Your task to perform on an android device: Go to Google Image 0: 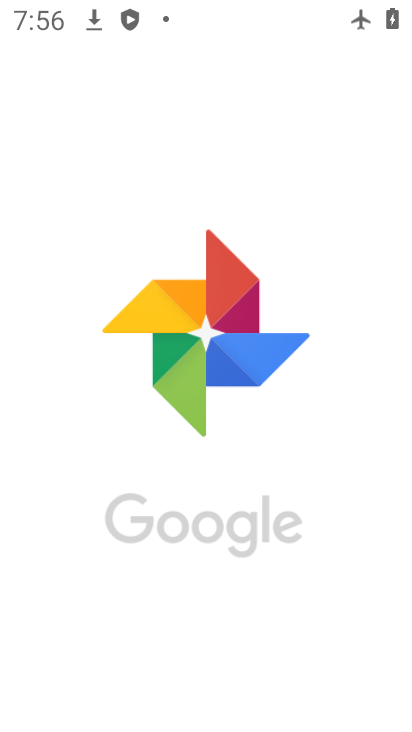
Step 0: drag from (242, 570) to (241, 80)
Your task to perform on an android device: Go to Google Image 1: 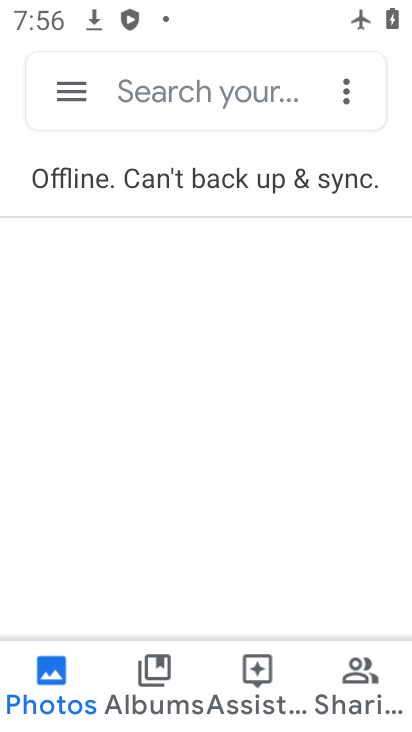
Step 1: press home button
Your task to perform on an android device: Go to Google Image 2: 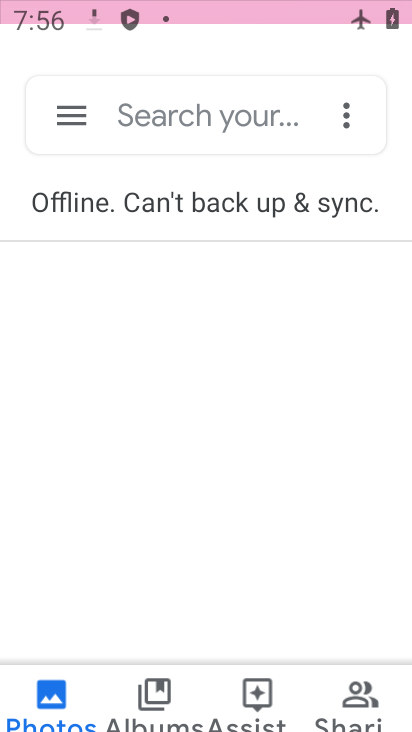
Step 2: press home button
Your task to perform on an android device: Go to Google Image 3: 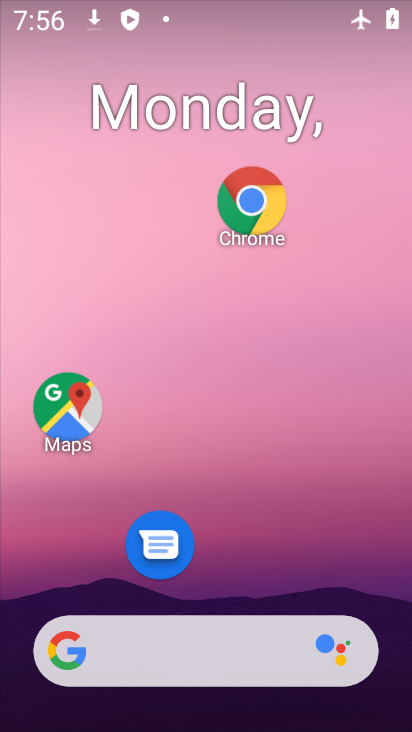
Step 3: drag from (238, 534) to (213, 114)
Your task to perform on an android device: Go to Google Image 4: 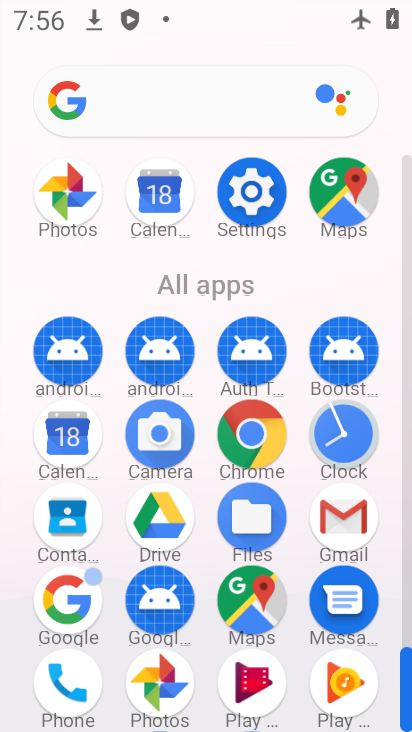
Step 4: click (58, 590)
Your task to perform on an android device: Go to Google Image 5: 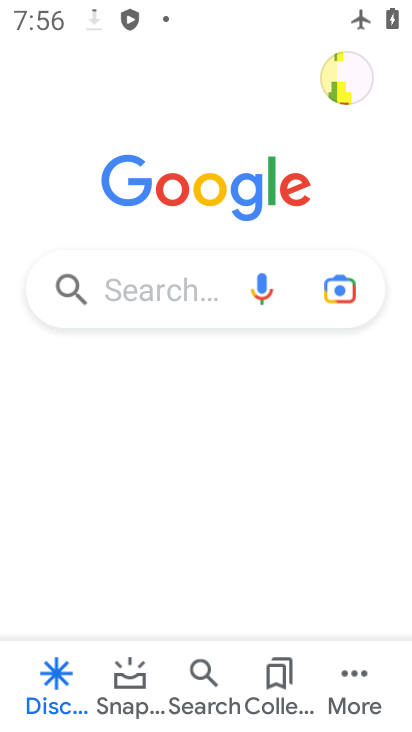
Step 5: task complete